Your task to perform on an android device: Search for sushi restaurants on Maps Image 0: 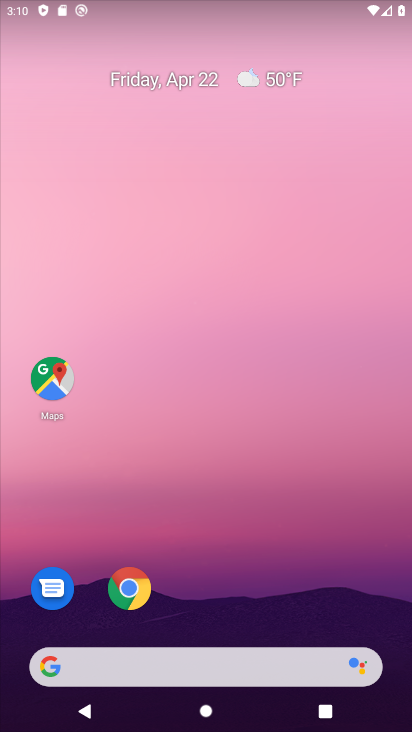
Step 0: drag from (359, 605) to (349, 116)
Your task to perform on an android device: Search for sushi restaurants on Maps Image 1: 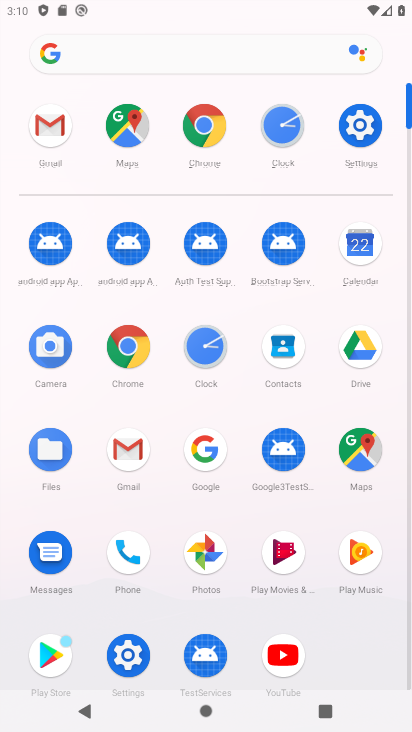
Step 1: click (374, 449)
Your task to perform on an android device: Search for sushi restaurants on Maps Image 2: 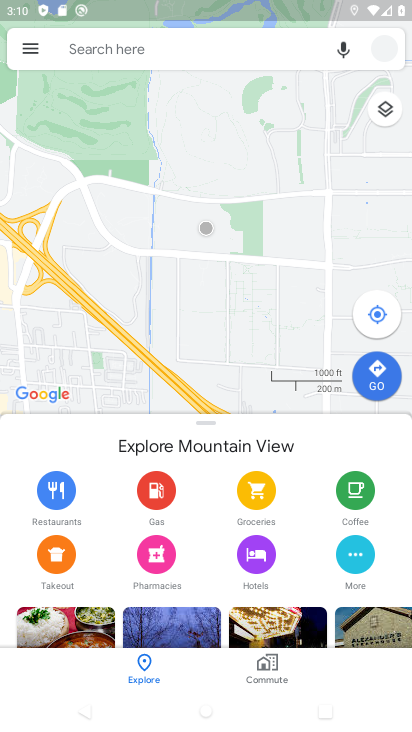
Step 2: click (189, 48)
Your task to perform on an android device: Search for sushi restaurants on Maps Image 3: 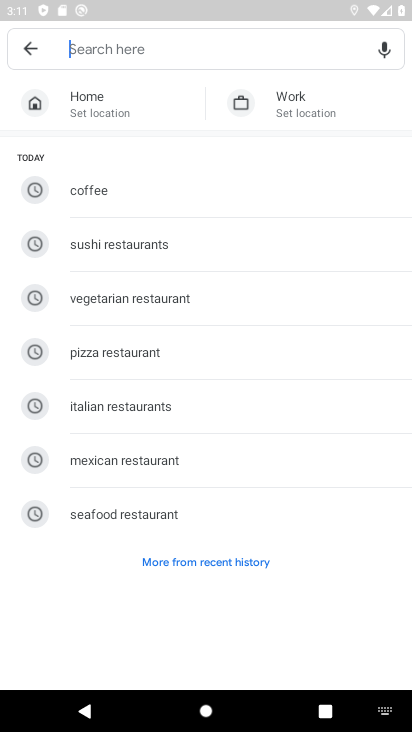
Step 3: type "sushi restaurants"
Your task to perform on an android device: Search for sushi restaurants on Maps Image 4: 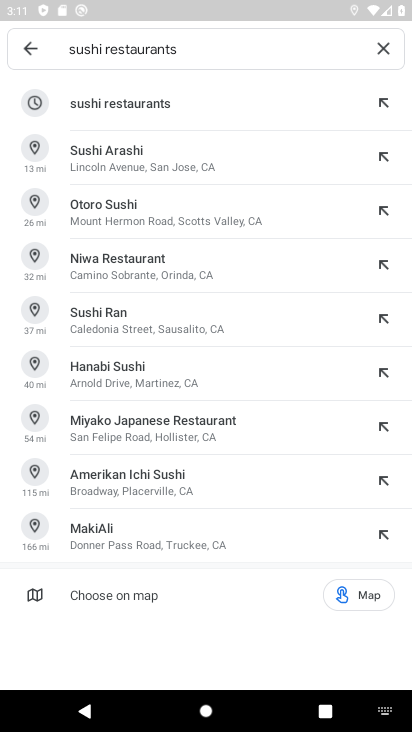
Step 4: click (164, 113)
Your task to perform on an android device: Search for sushi restaurants on Maps Image 5: 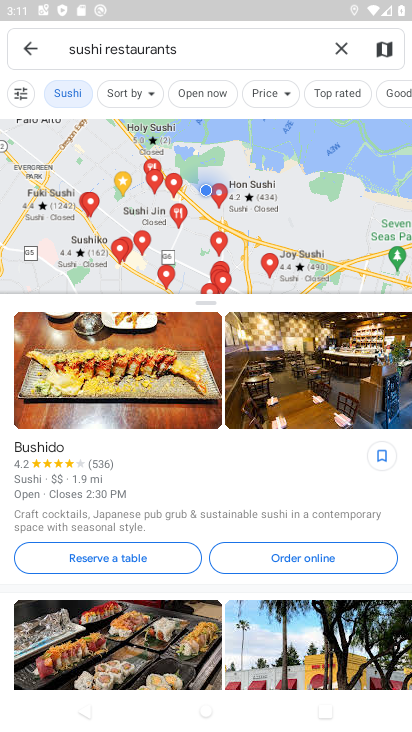
Step 5: task complete